Your task to perform on an android device: Is it going to rain tomorrow? Image 0: 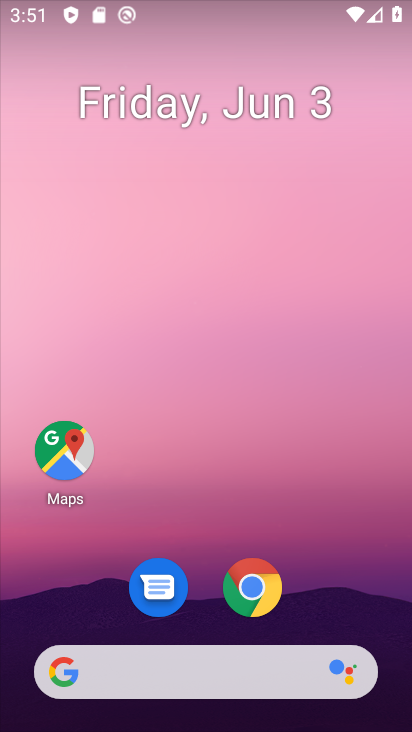
Step 0: click (51, 236)
Your task to perform on an android device: Is it going to rain tomorrow? Image 1: 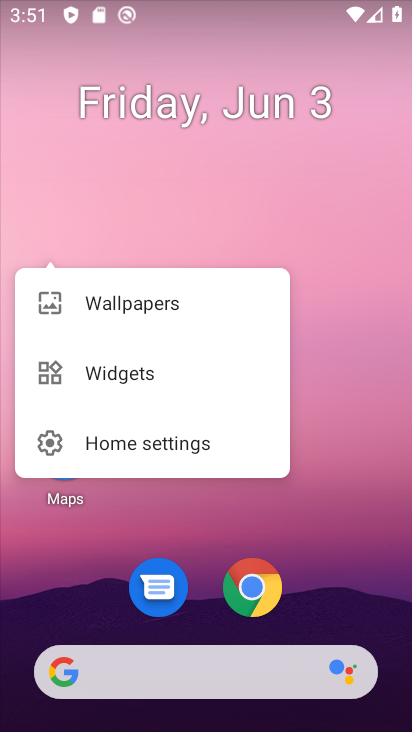
Step 1: drag from (13, 223) to (393, 263)
Your task to perform on an android device: Is it going to rain tomorrow? Image 2: 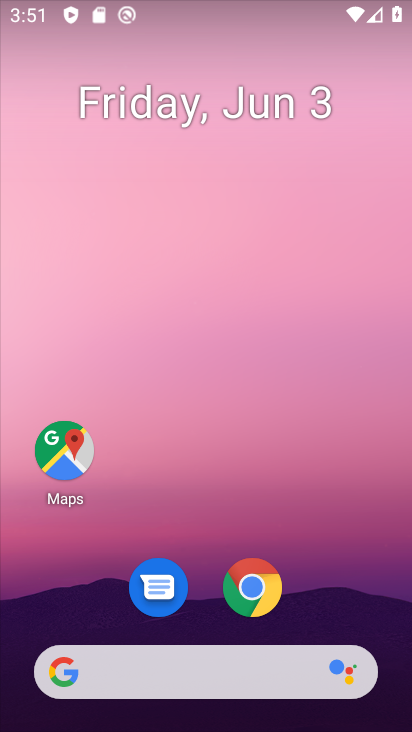
Step 2: drag from (11, 256) to (411, 136)
Your task to perform on an android device: Is it going to rain tomorrow? Image 3: 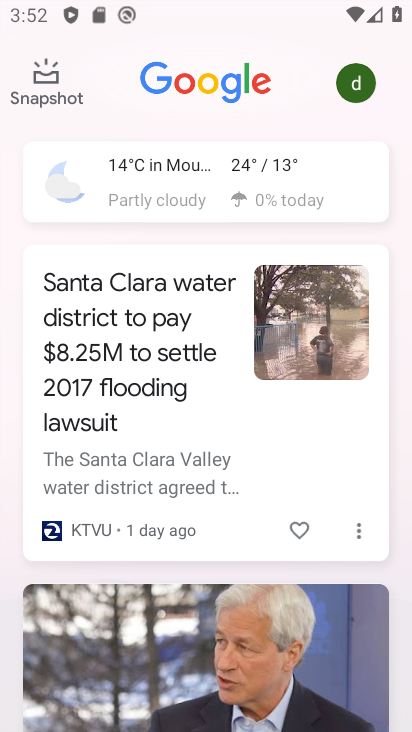
Step 3: click (324, 155)
Your task to perform on an android device: Is it going to rain tomorrow? Image 4: 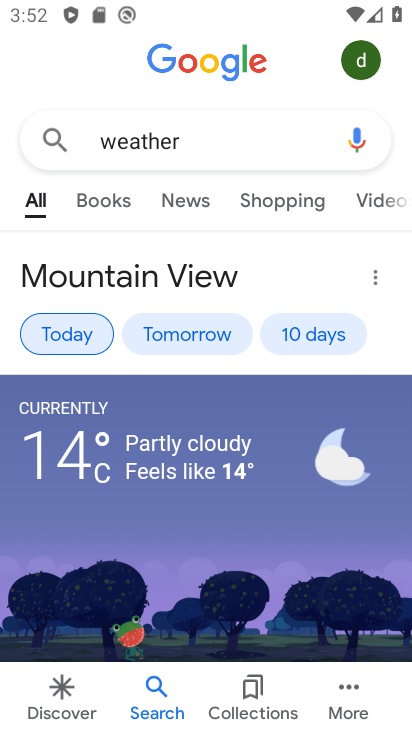
Step 4: click (237, 323)
Your task to perform on an android device: Is it going to rain tomorrow? Image 5: 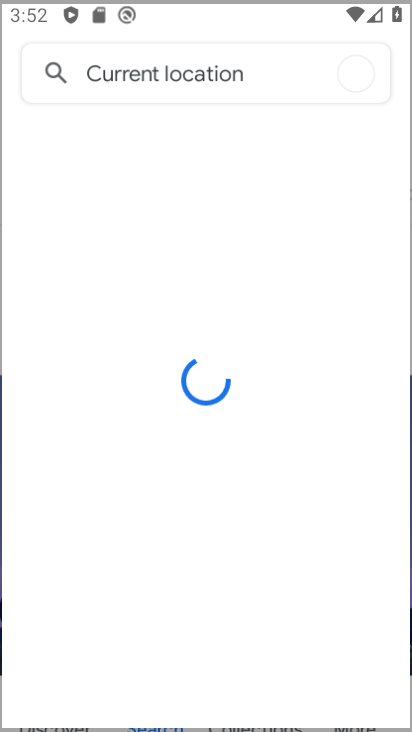
Step 5: click (237, 323)
Your task to perform on an android device: Is it going to rain tomorrow? Image 6: 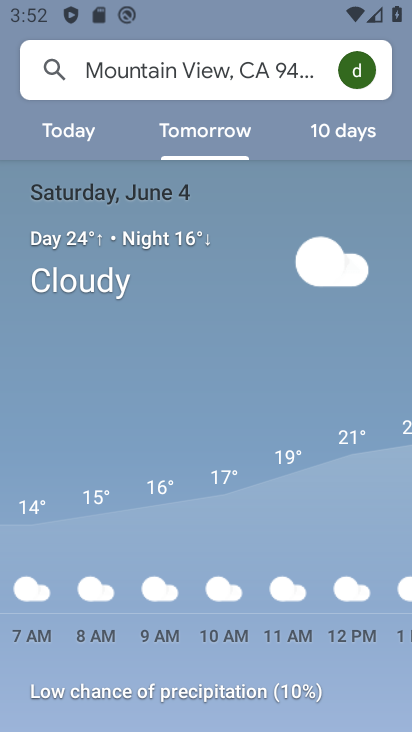
Step 6: task complete